Your task to perform on an android device: Open the Play Movies app and select the watchlist tab. Image 0: 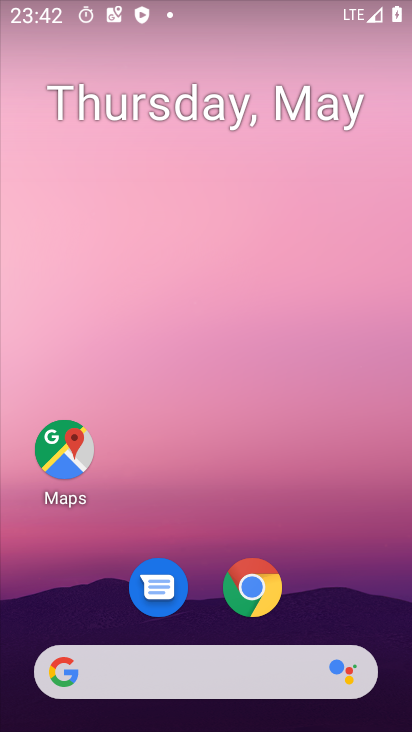
Step 0: drag from (389, 669) to (352, 10)
Your task to perform on an android device: Open the Play Movies app and select the watchlist tab. Image 1: 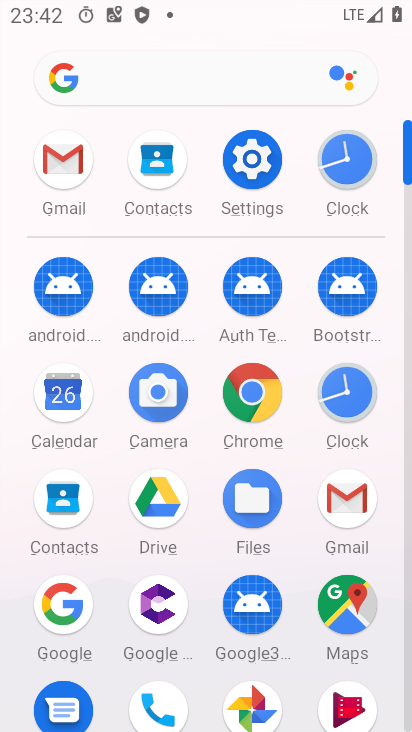
Step 1: drag from (407, 554) to (404, 512)
Your task to perform on an android device: Open the Play Movies app and select the watchlist tab. Image 2: 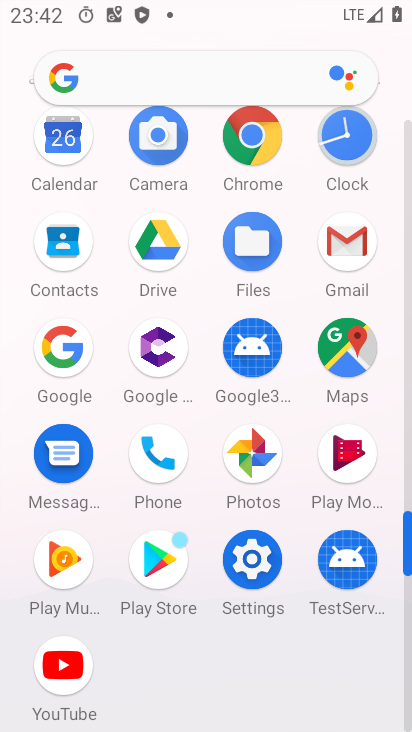
Step 2: click (335, 450)
Your task to perform on an android device: Open the Play Movies app and select the watchlist tab. Image 3: 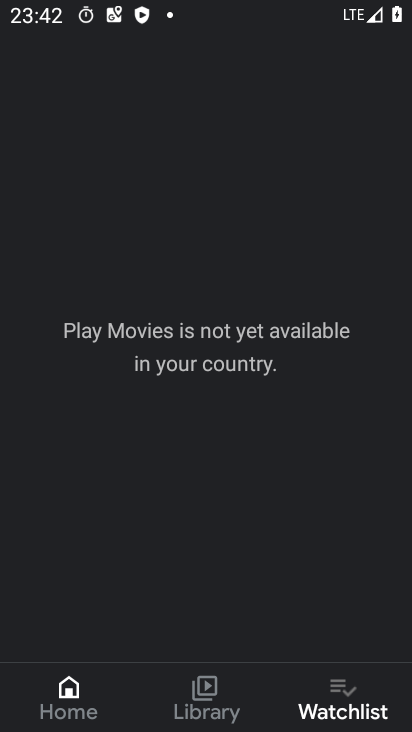
Step 3: click (328, 721)
Your task to perform on an android device: Open the Play Movies app and select the watchlist tab. Image 4: 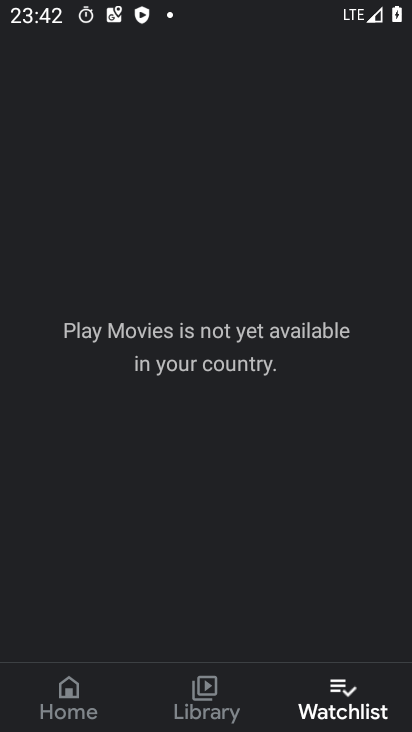
Step 4: task complete